Your task to perform on an android device: Open Chrome and go to the settings page Image 0: 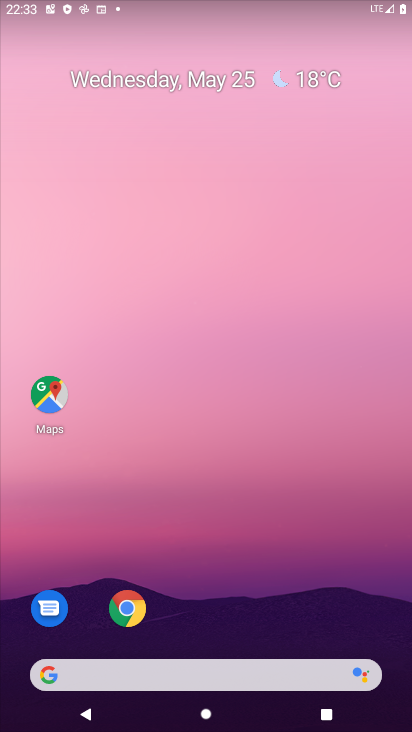
Step 0: click (135, 602)
Your task to perform on an android device: Open Chrome and go to the settings page Image 1: 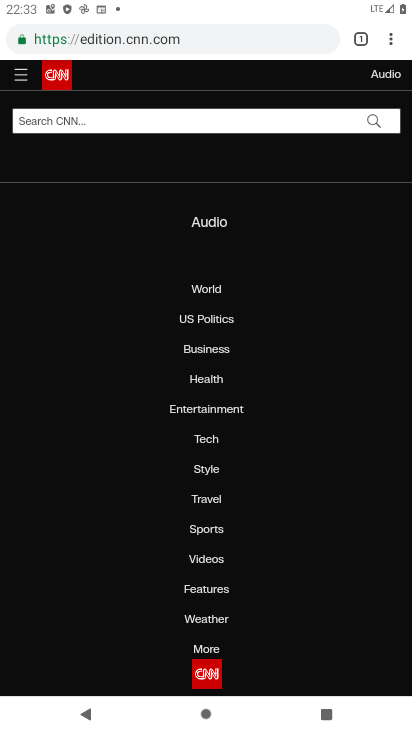
Step 1: click (390, 28)
Your task to perform on an android device: Open Chrome and go to the settings page Image 2: 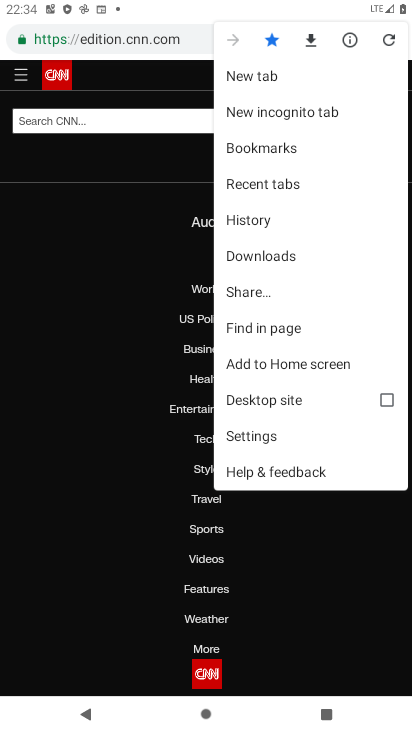
Step 2: click (294, 440)
Your task to perform on an android device: Open Chrome and go to the settings page Image 3: 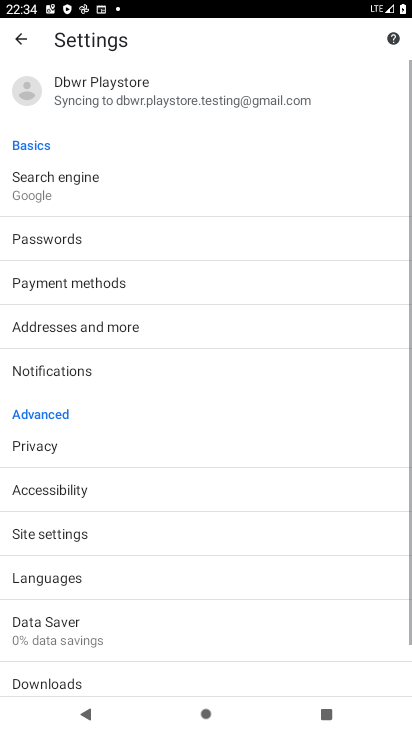
Step 3: task complete